Your task to perform on an android device: turn on airplane mode Image 0: 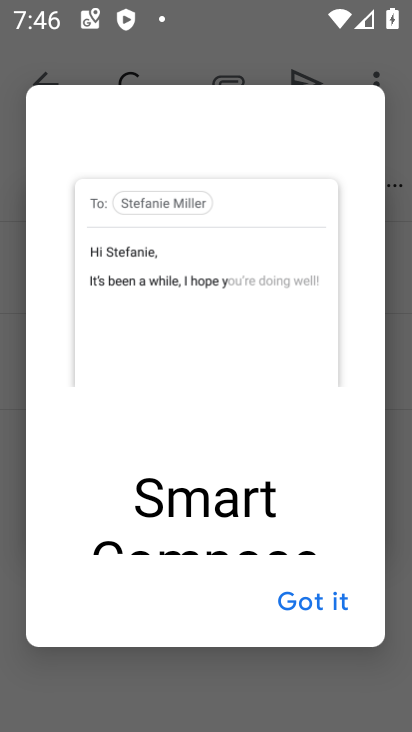
Step 0: press home button
Your task to perform on an android device: turn on airplane mode Image 1: 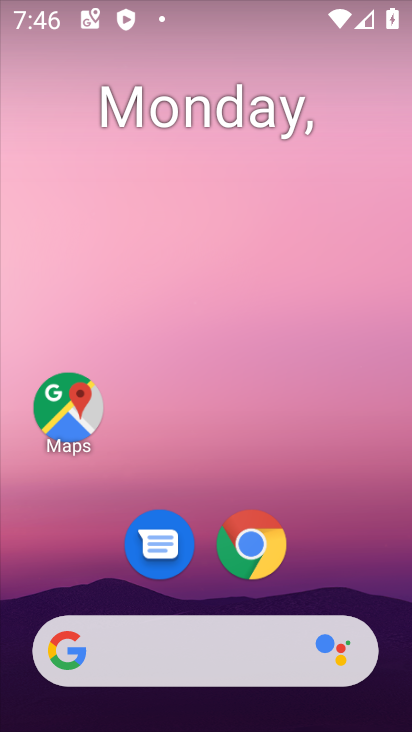
Step 1: drag from (341, 508) to (245, 94)
Your task to perform on an android device: turn on airplane mode Image 2: 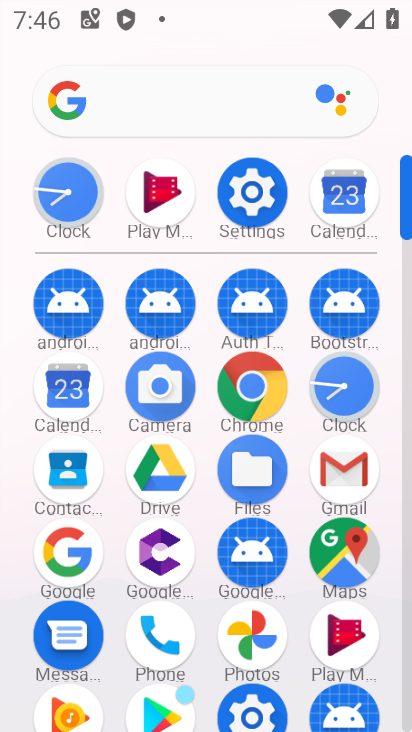
Step 2: click (251, 182)
Your task to perform on an android device: turn on airplane mode Image 3: 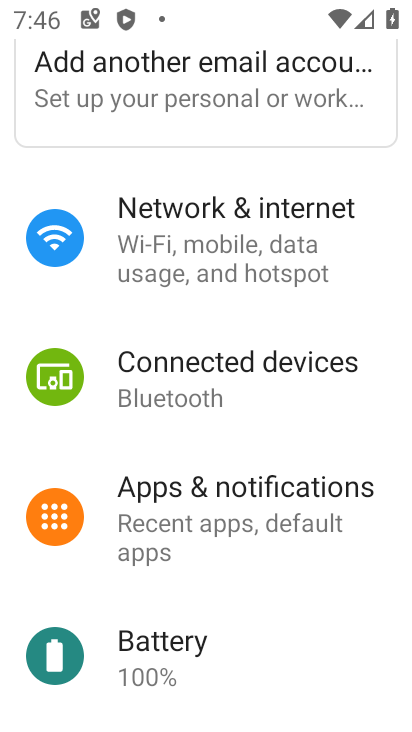
Step 3: click (230, 209)
Your task to perform on an android device: turn on airplane mode Image 4: 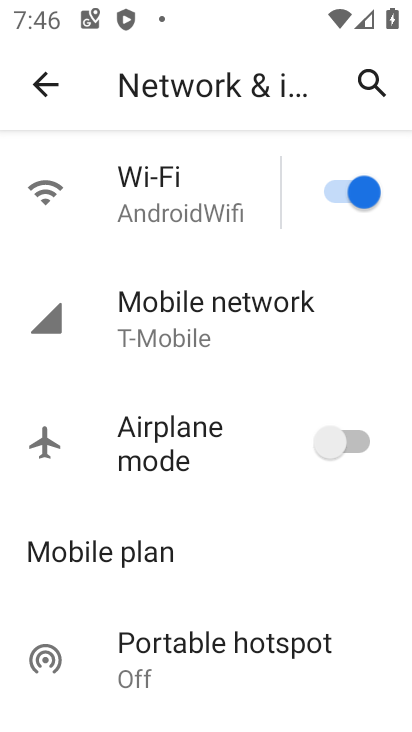
Step 4: click (332, 439)
Your task to perform on an android device: turn on airplane mode Image 5: 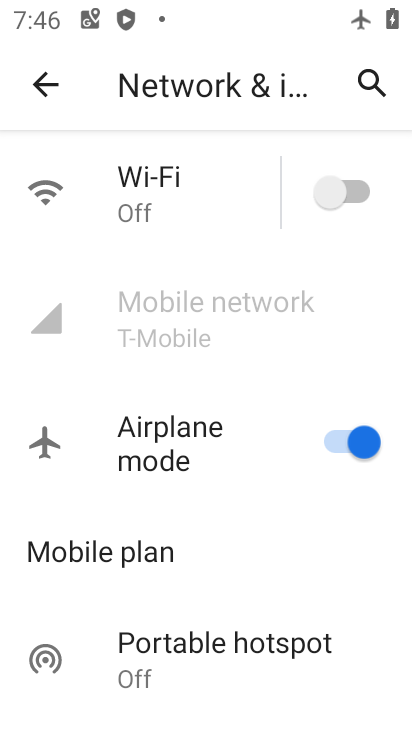
Step 5: task complete